Your task to perform on an android device: Search for sushi restaurants on Maps Image 0: 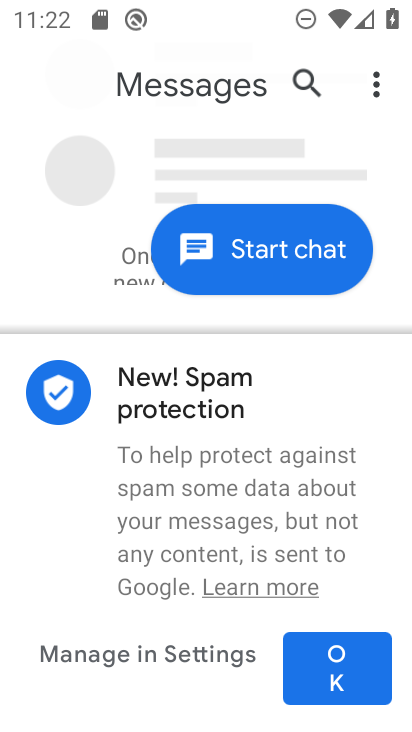
Step 0: press home button
Your task to perform on an android device: Search for sushi restaurants on Maps Image 1: 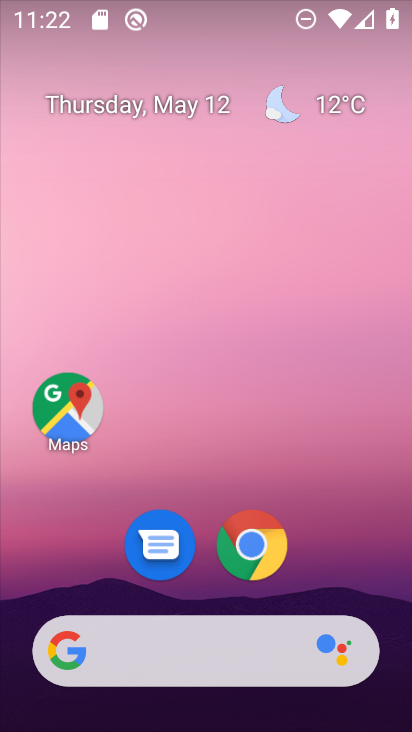
Step 1: click (67, 403)
Your task to perform on an android device: Search for sushi restaurants on Maps Image 2: 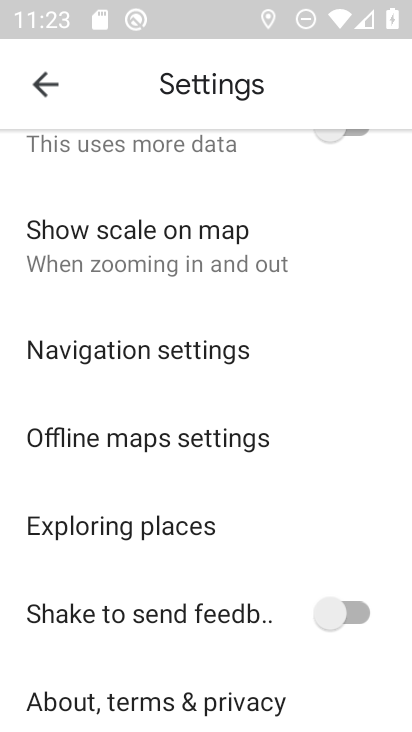
Step 2: press home button
Your task to perform on an android device: Search for sushi restaurants on Maps Image 3: 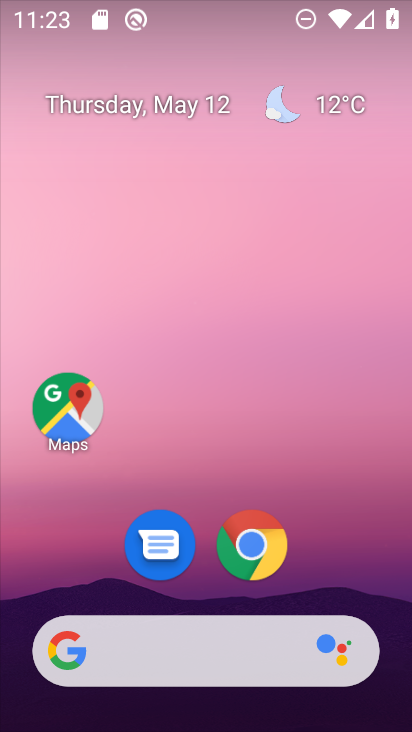
Step 3: click (65, 405)
Your task to perform on an android device: Search for sushi restaurants on Maps Image 4: 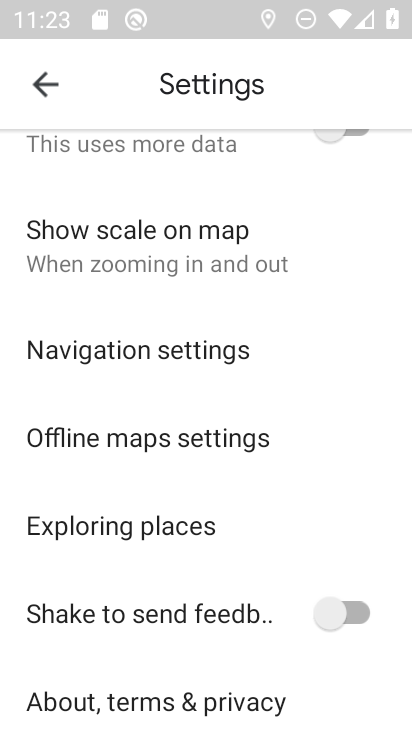
Step 4: click (54, 80)
Your task to perform on an android device: Search for sushi restaurants on Maps Image 5: 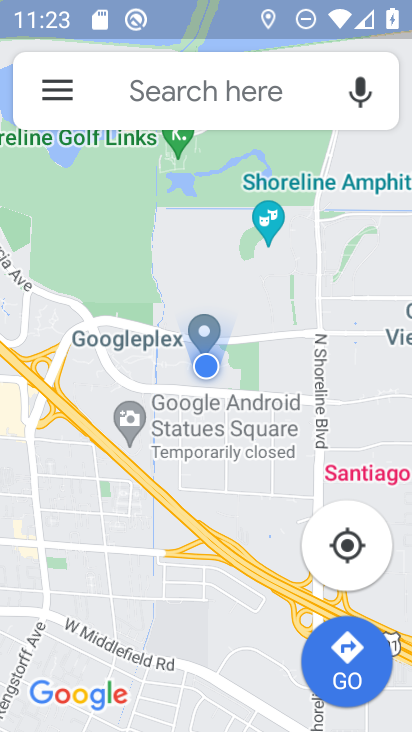
Step 5: click (179, 88)
Your task to perform on an android device: Search for sushi restaurants on Maps Image 6: 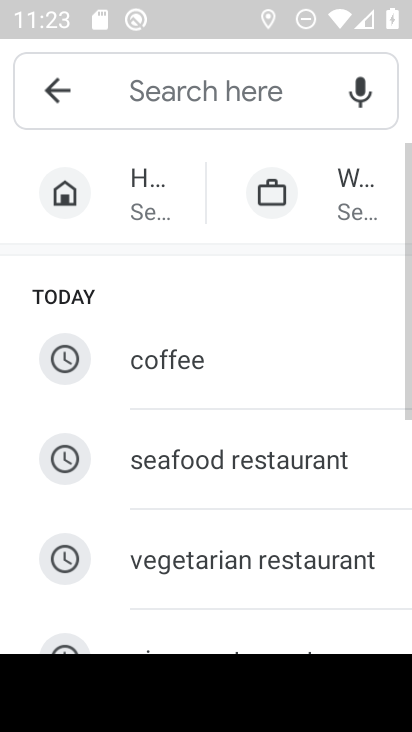
Step 6: drag from (212, 601) to (216, 185)
Your task to perform on an android device: Search for sushi restaurants on Maps Image 7: 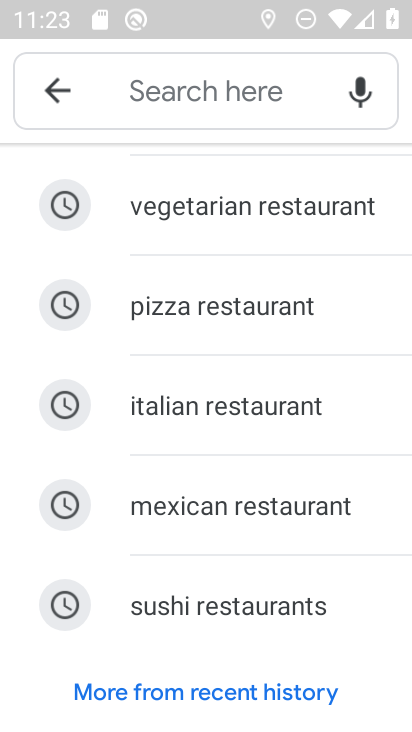
Step 7: click (156, 600)
Your task to perform on an android device: Search for sushi restaurants on Maps Image 8: 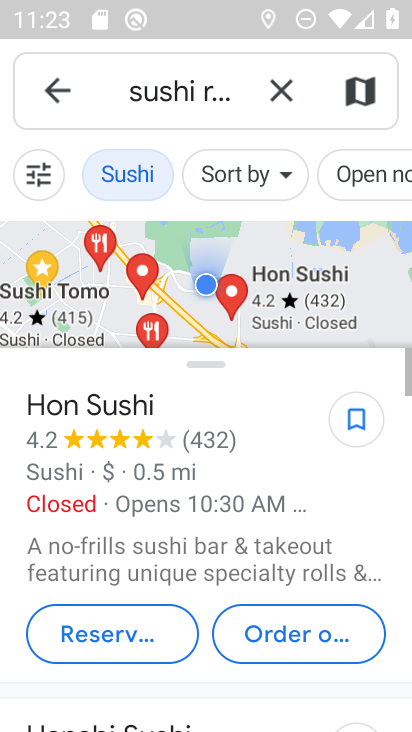
Step 8: task complete